Your task to perform on an android device: Add "razer blade" to the cart on newegg.com Image 0: 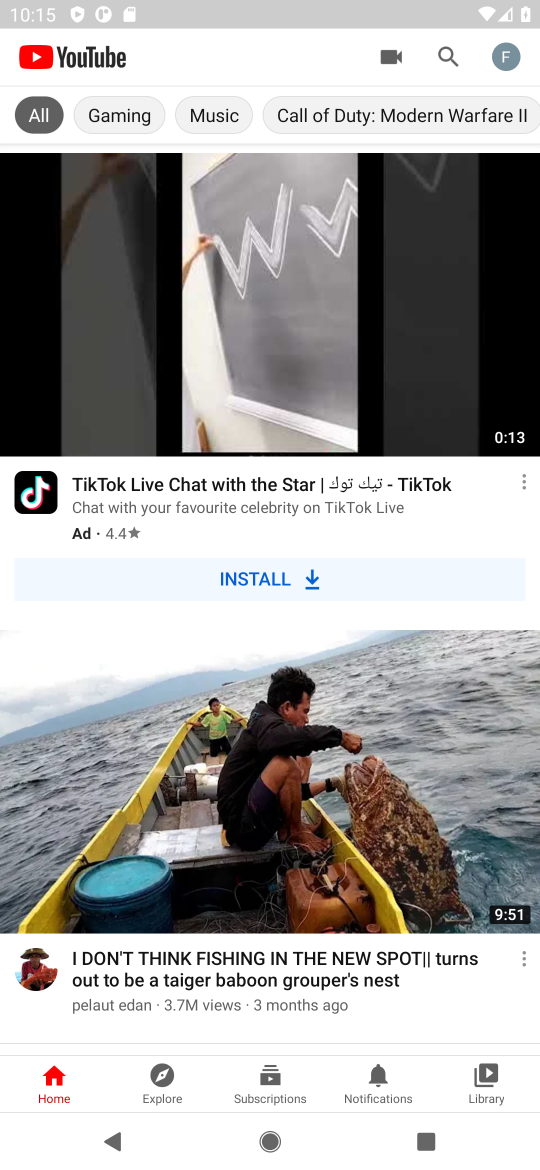
Step 0: press home button
Your task to perform on an android device: Add "razer blade" to the cart on newegg.com Image 1: 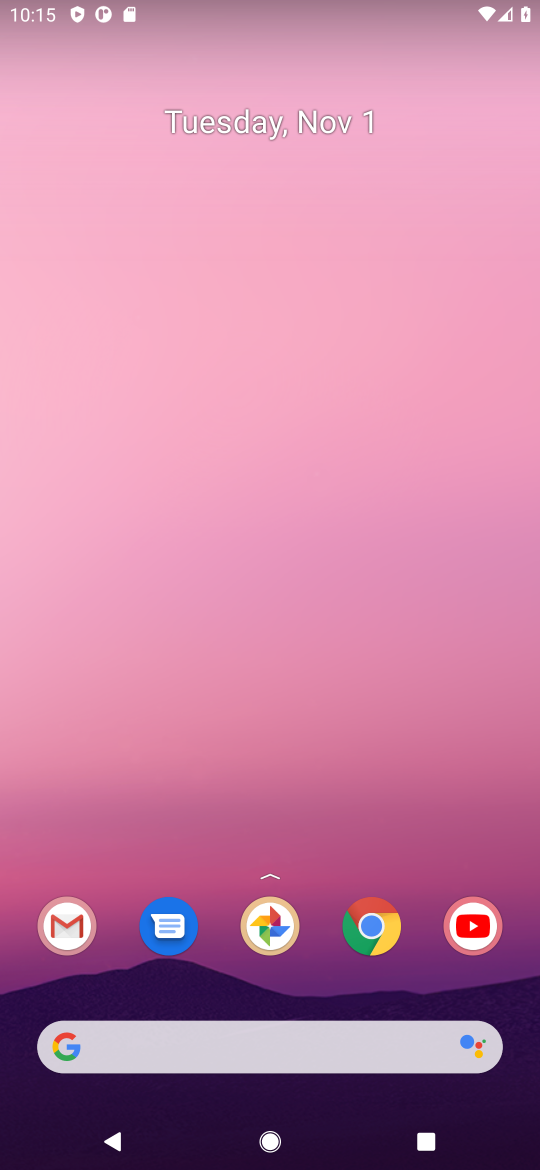
Step 1: click (374, 928)
Your task to perform on an android device: Add "razer blade" to the cart on newegg.com Image 2: 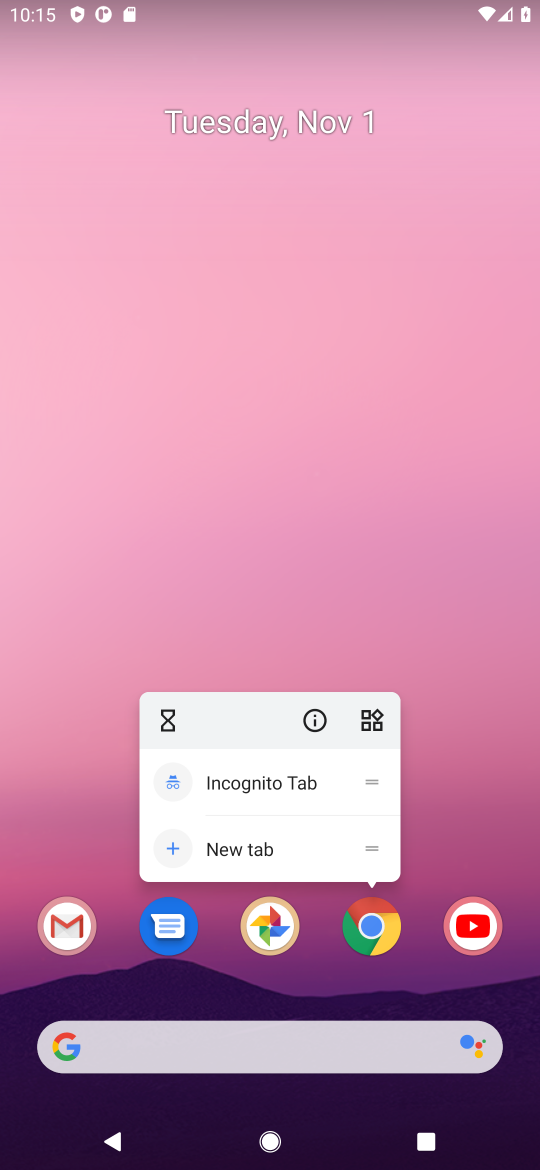
Step 2: click (369, 928)
Your task to perform on an android device: Add "razer blade" to the cart on newegg.com Image 3: 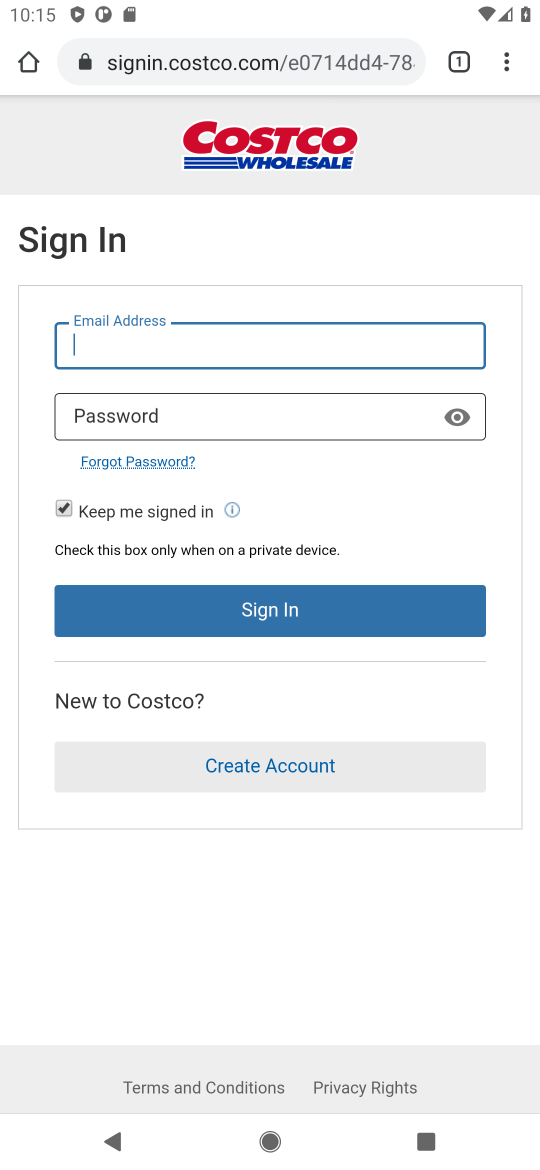
Step 3: press back button
Your task to perform on an android device: Add "razer blade" to the cart on newegg.com Image 4: 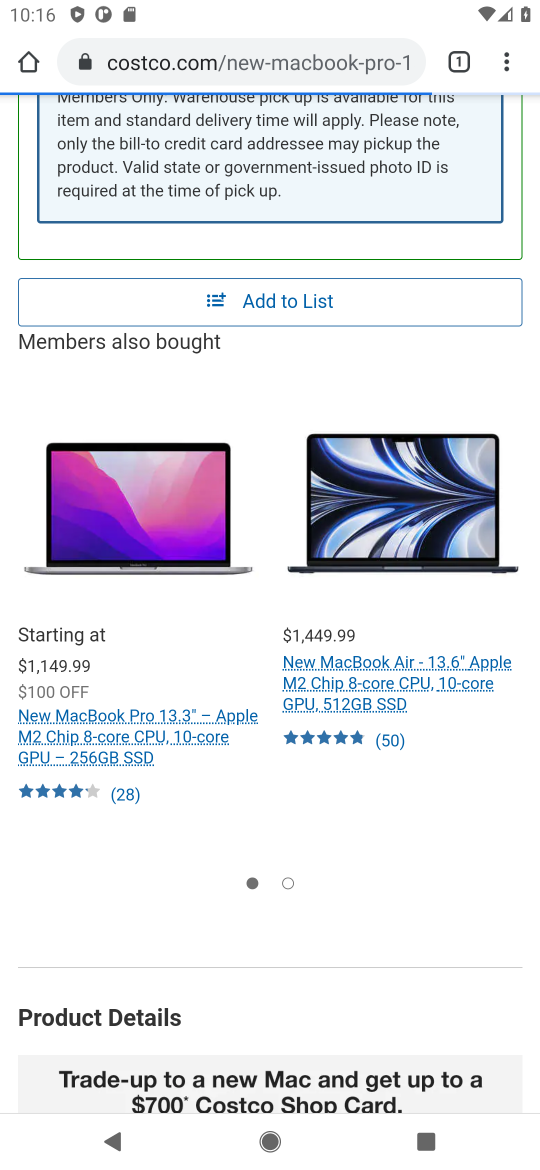
Step 4: click (205, 63)
Your task to perform on an android device: Add "razer blade" to the cart on newegg.com Image 5: 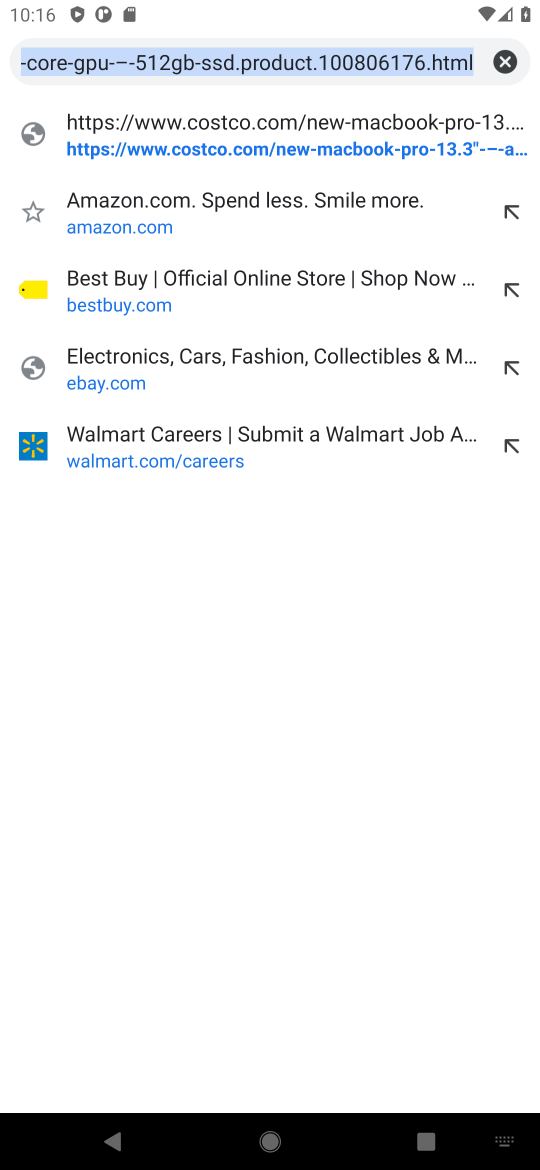
Step 5: click (506, 71)
Your task to perform on an android device: Add "razer blade" to the cart on newegg.com Image 6: 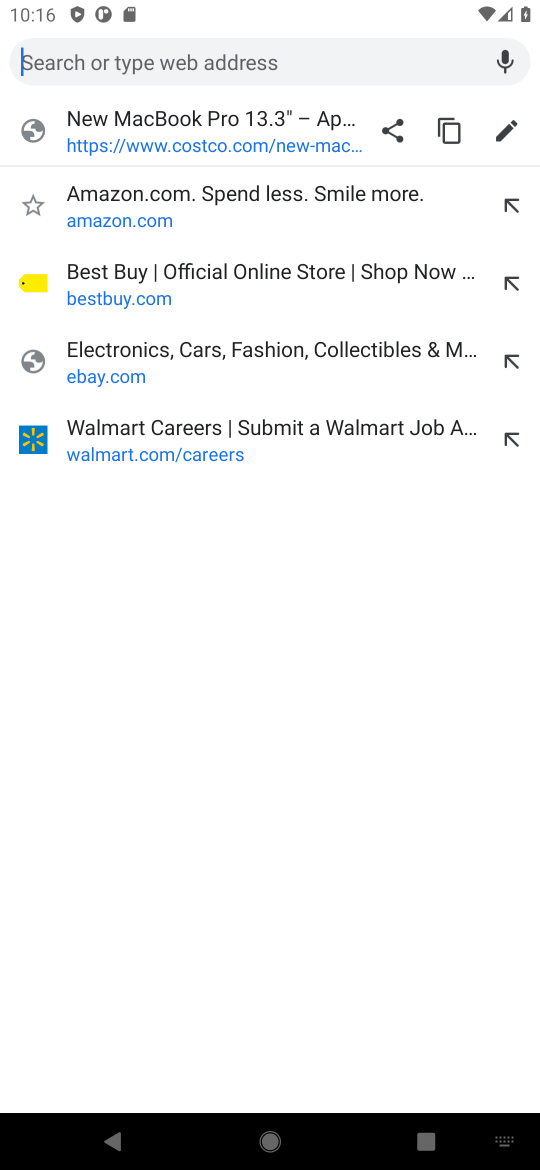
Step 6: type "newegg"
Your task to perform on an android device: Add "razer blade" to the cart on newegg.com Image 7: 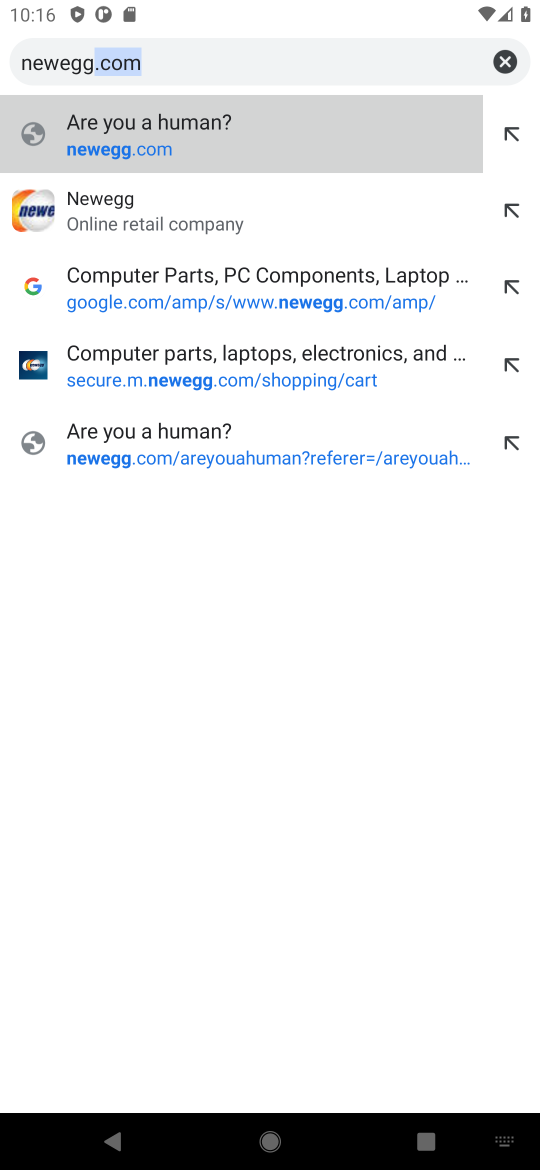
Step 7: click (72, 191)
Your task to perform on an android device: Add "razer blade" to the cart on newegg.com Image 8: 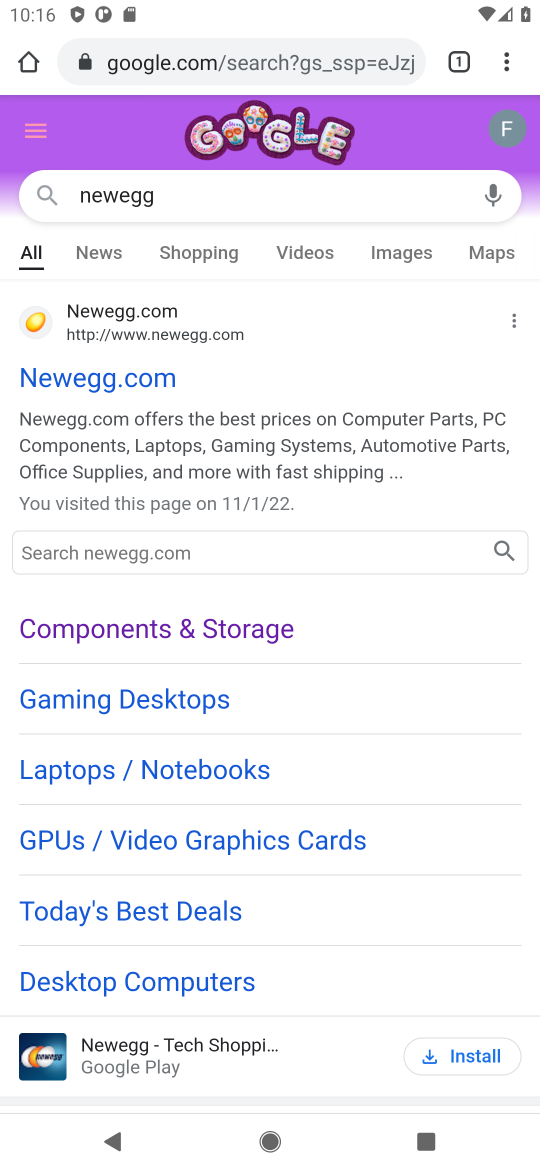
Step 8: click (75, 377)
Your task to perform on an android device: Add "razer blade" to the cart on newegg.com Image 9: 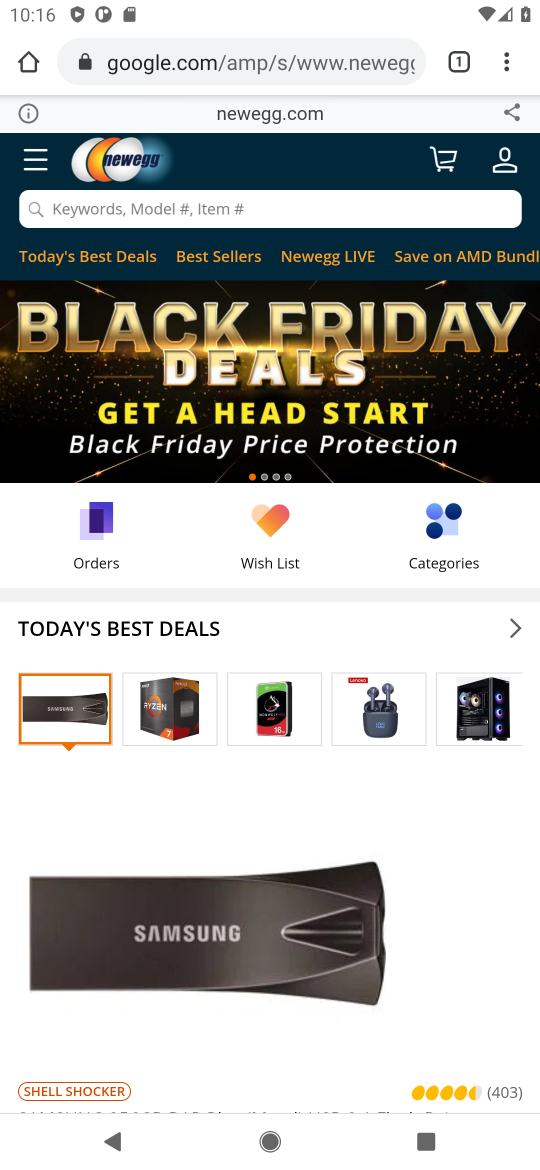
Step 9: click (223, 199)
Your task to perform on an android device: Add "razer blade" to the cart on newegg.com Image 10: 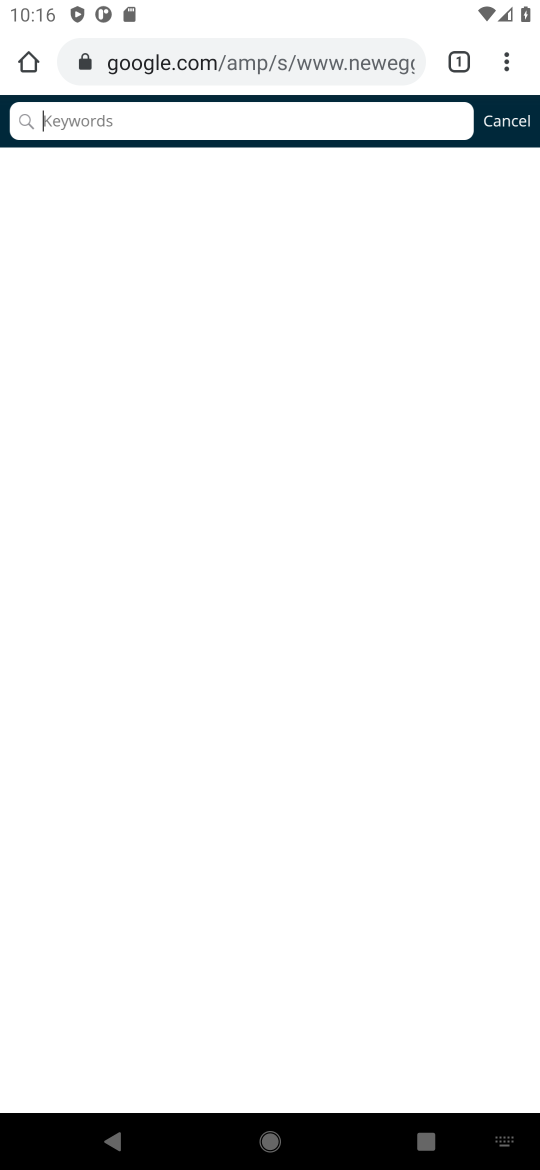
Step 10: type "razer blade"
Your task to perform on an android device: Add "razer blade" to the cart on newegg.com Image 11: 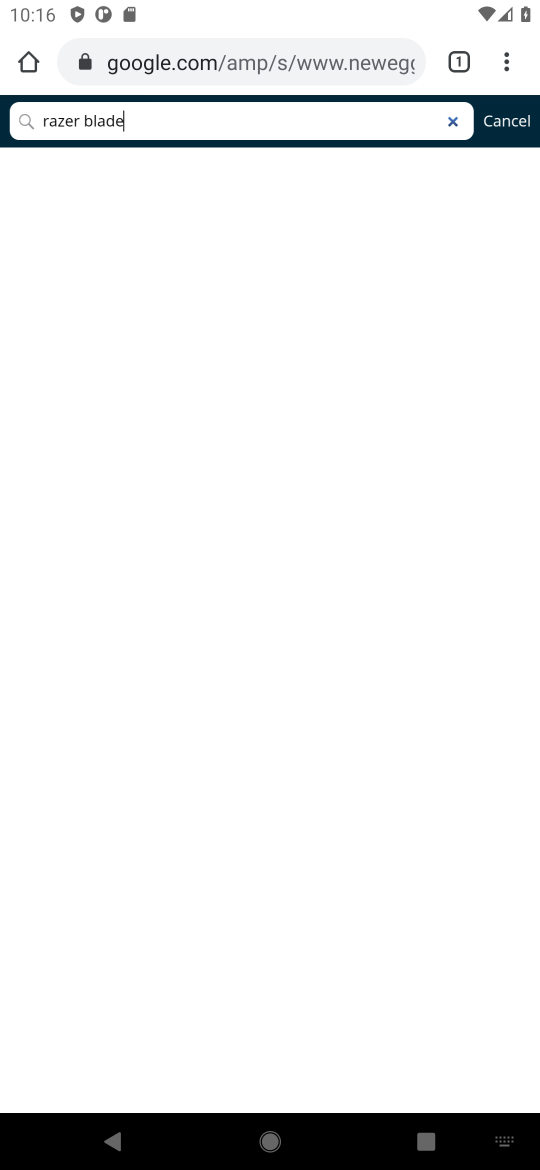
Step 11: type ""
Your task to perform on an android device: Add "razer blade" to the cart on newegg.com Image 12: 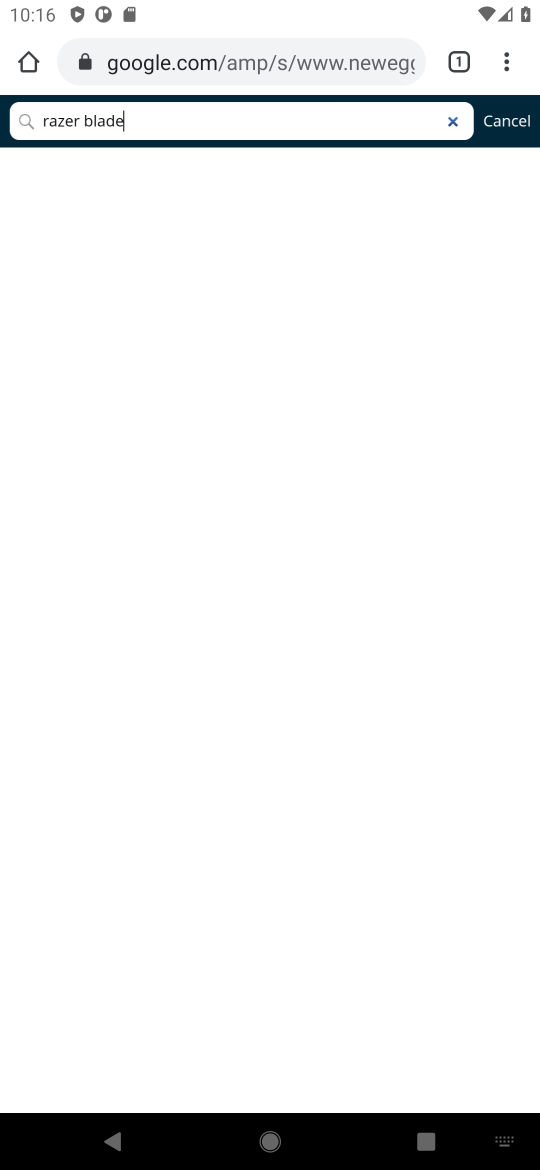
Step 12: type ""
Your task to perform on an android device: Add "razer blade" to the cart on newegg.com Image 13: 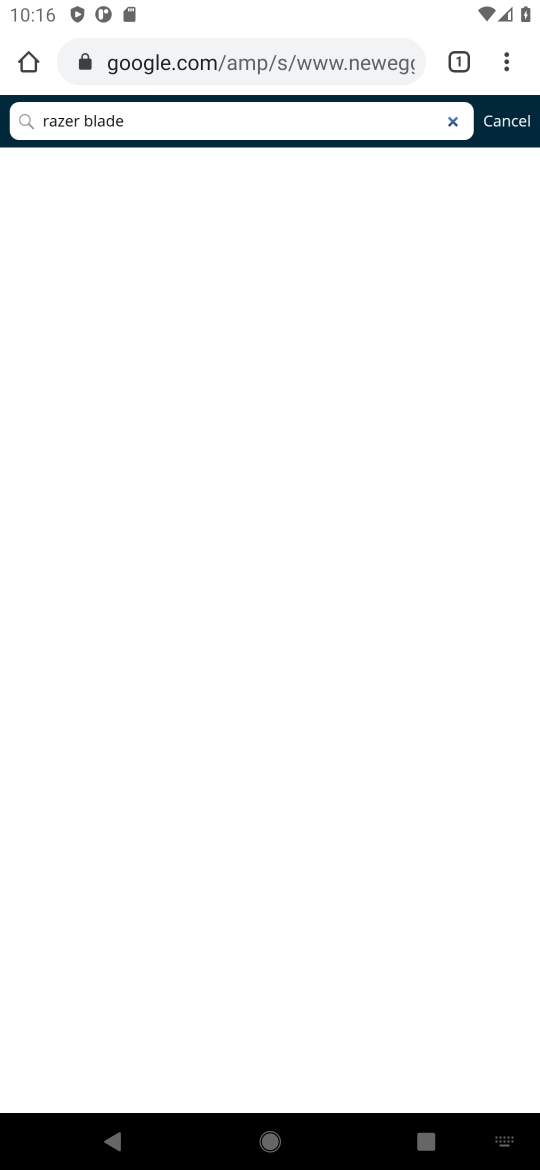
Step 13: click (137, 112)
Your task to perform on an android device: Add "razer blade" to the cart on newegg.com Image 14: 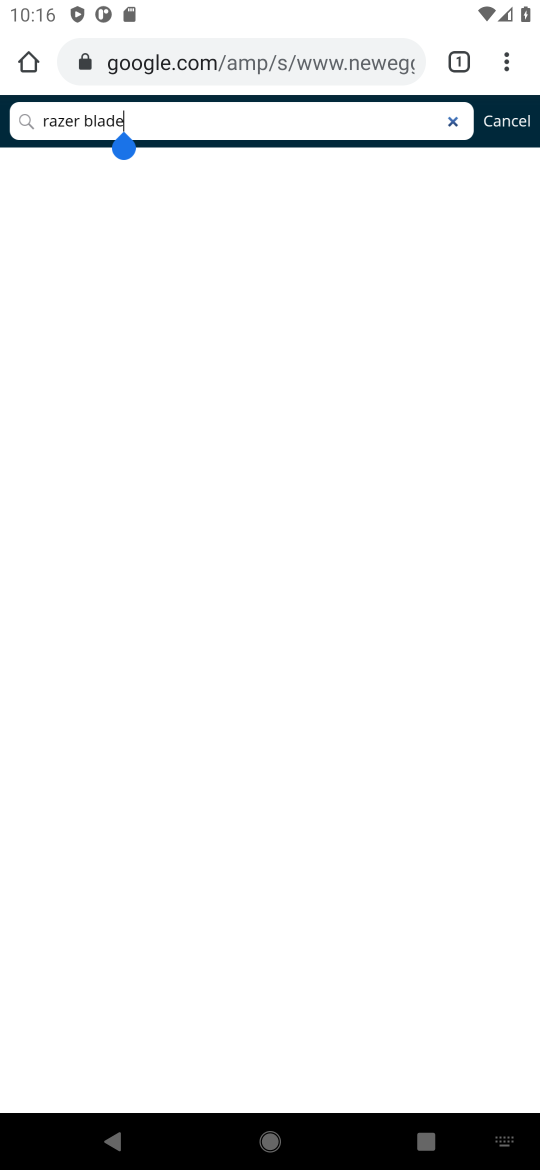
Step 14: click (459, 118)
Your task to perform on an android device: Add "razer blade" to the cart on newegg.com Image 15: 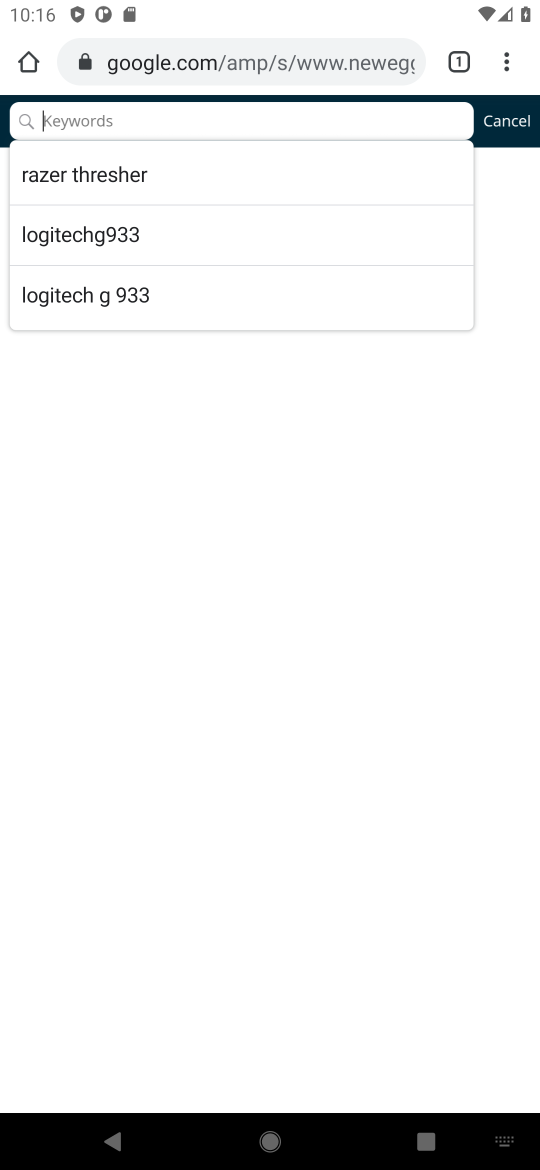
Step 15: click (104, 453)
Your task to perform on an android device: Add "razer blade" to the cart on newegg.com Image 16: 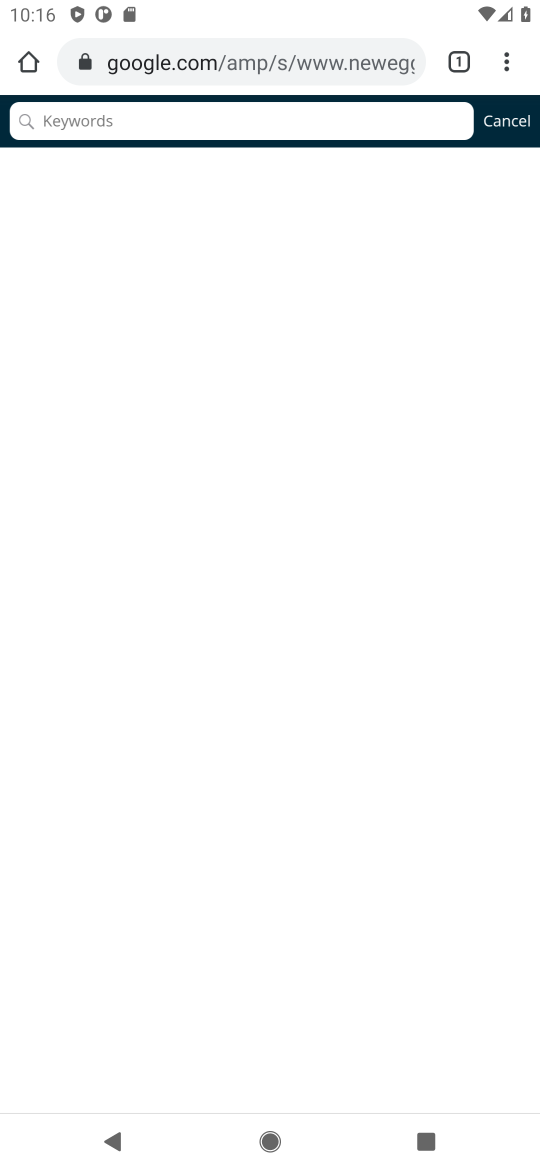
Step 16: click (497, 128)
Your task to perform on an android device: Add "razer blade" to the cart on newegg.com Image 17: 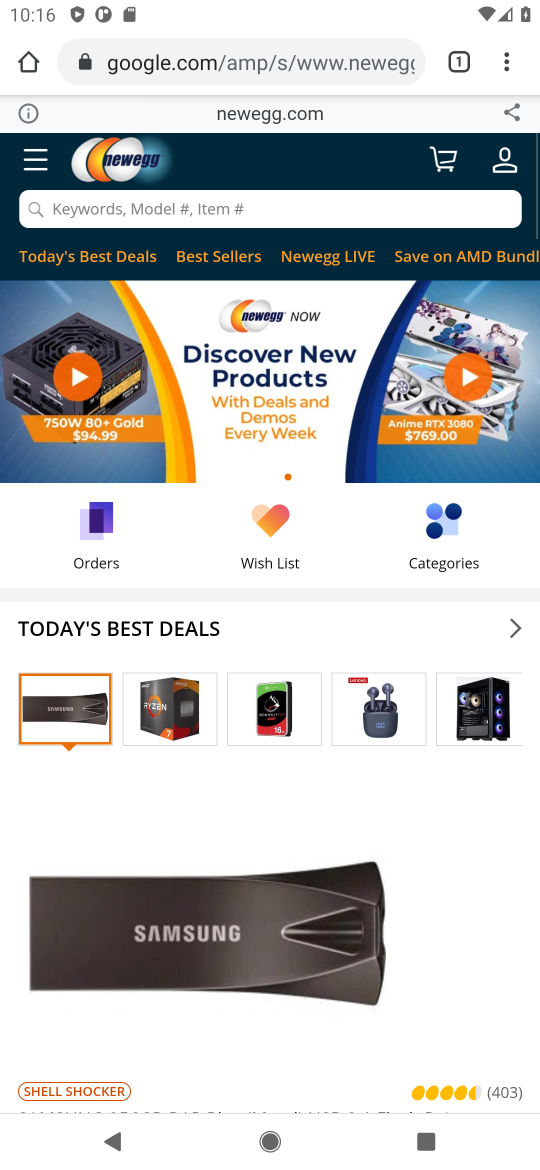
Step 17: press back button
Your task to perform on an android device: Add "razer blade" to the cart on newegg.com Image 18: 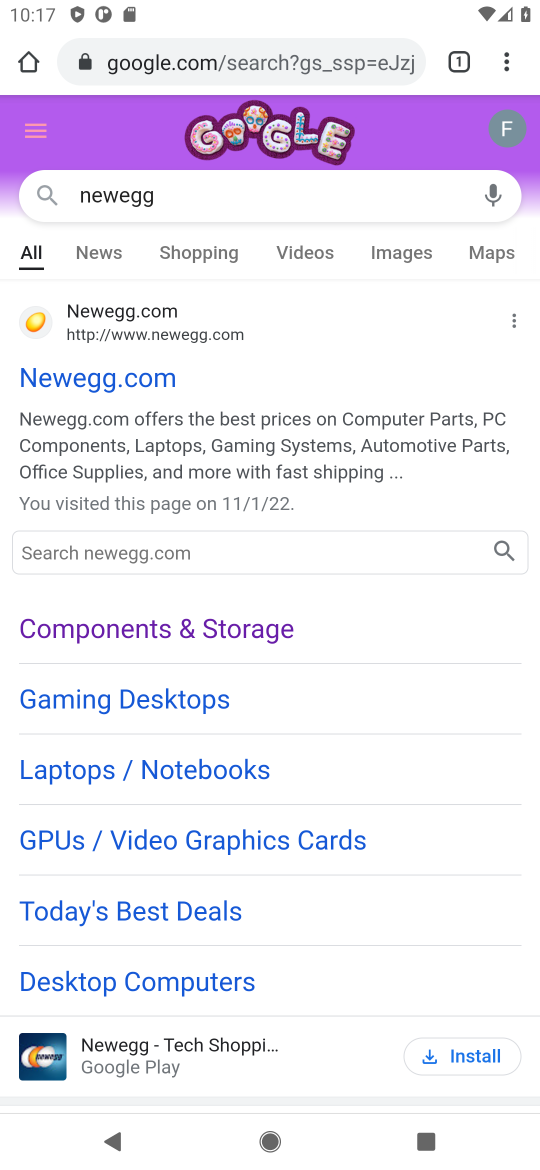
Step 18: click (86, 375)
Your task to perform on an android device: Add "razer blade" to the cart on newegg.com Image 19: 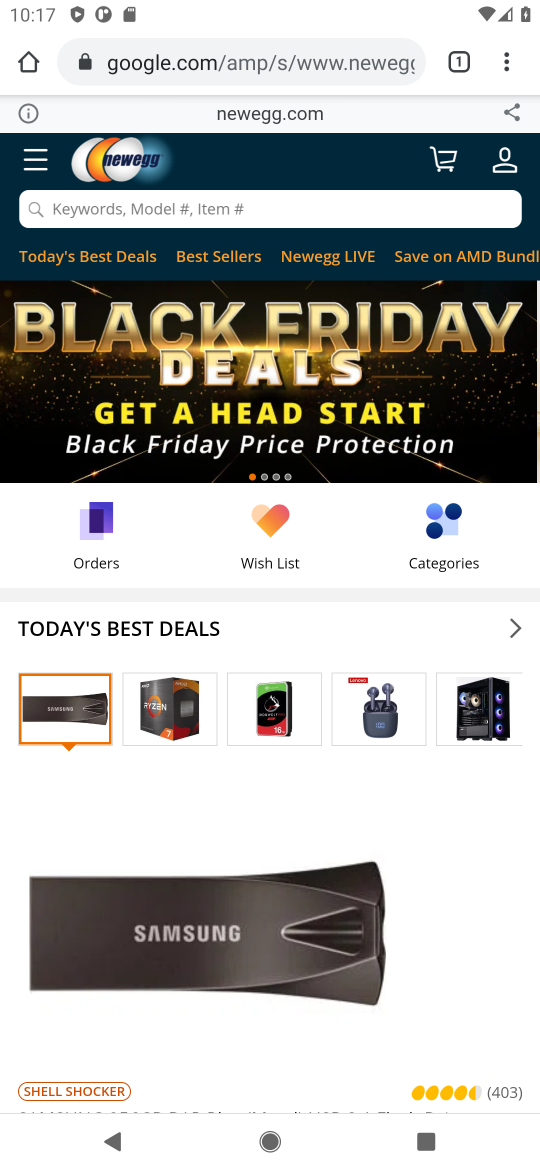
Step 19: click (88, 213)
Your task to perform on an android device: Add "razer blade" to the cart on newegg.com Image 20: 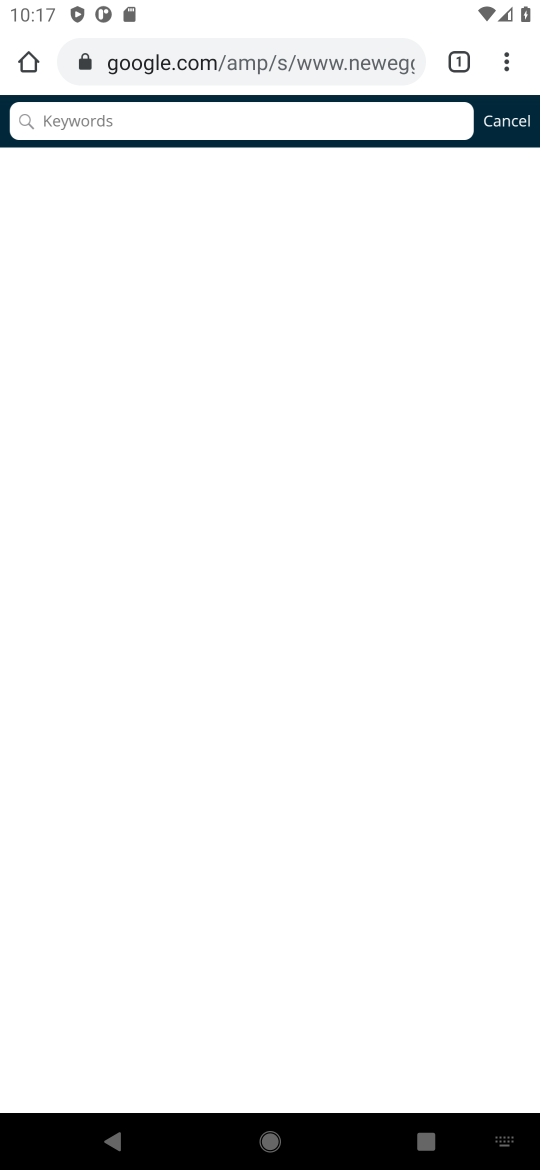
Step 20: type "razer blade"
Your task to perform on an android device: Add "razer blade" to the cart on newegg.com Image 21: 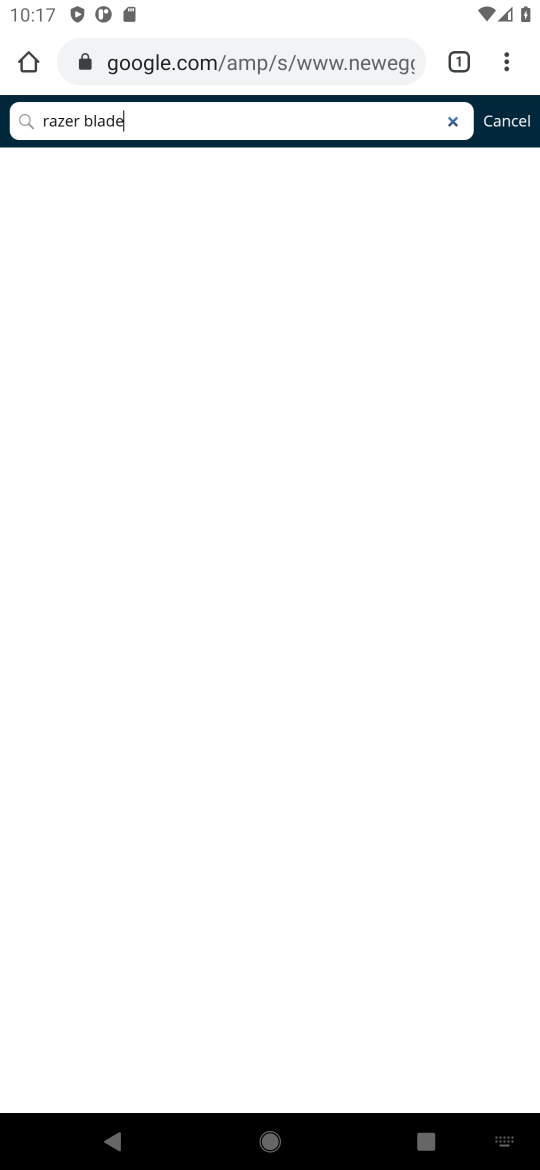
Step 21: type ""
Your task to perform on an android device: Add "razer blade" to the cart on newegg.com Image 22: 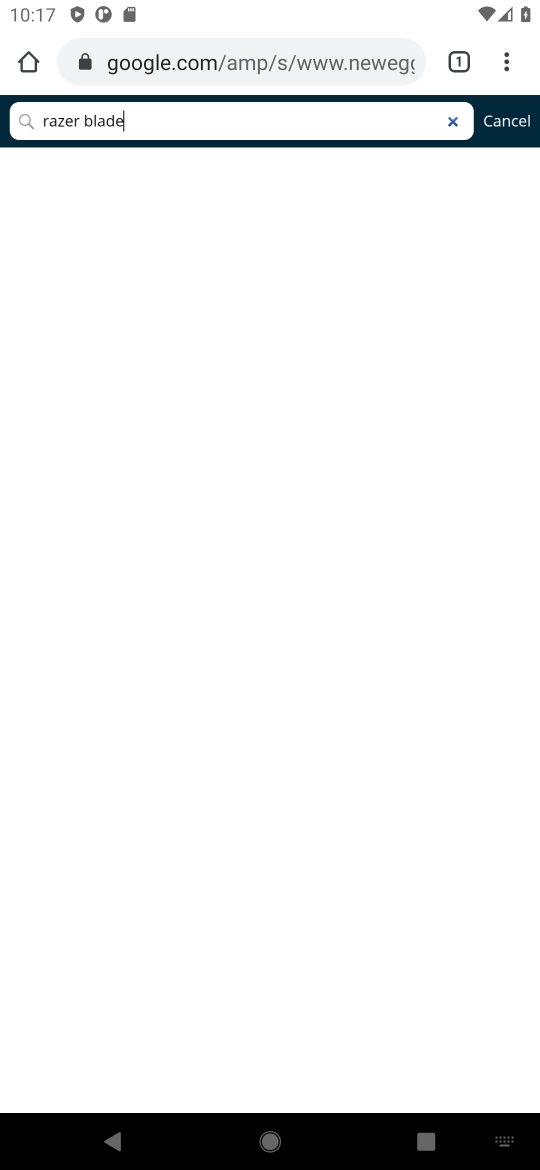
Step 22: click (32, 119)
Your task to perform on an android device: Add "razer blade" to the cart on newegg.com Image 23: 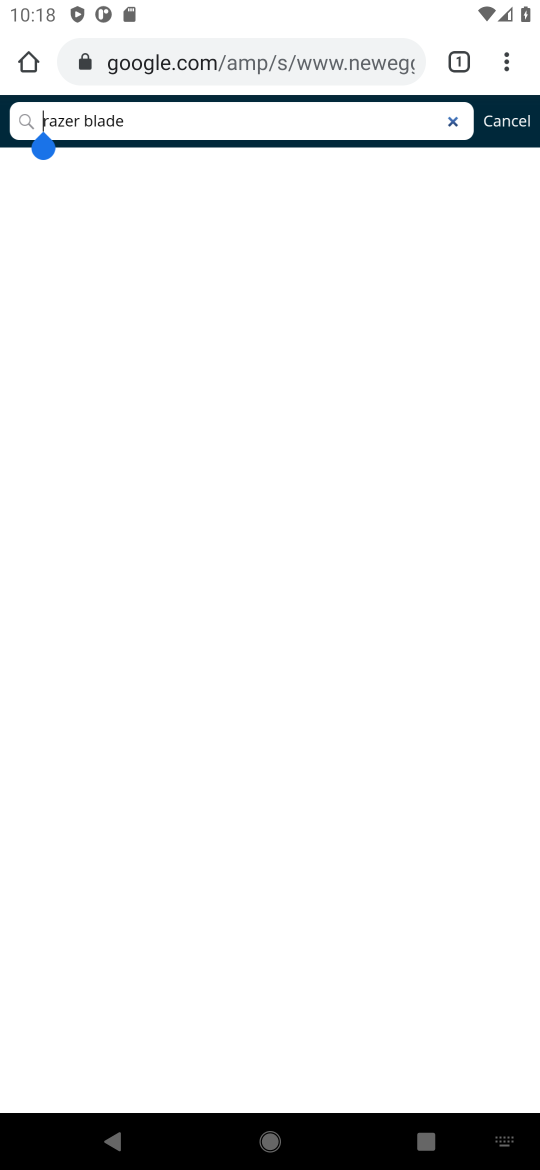
Step 23: click (257, 71)
Your task to perform on an android device: Add "razer blade" to the cart on newegg.com Image 24: 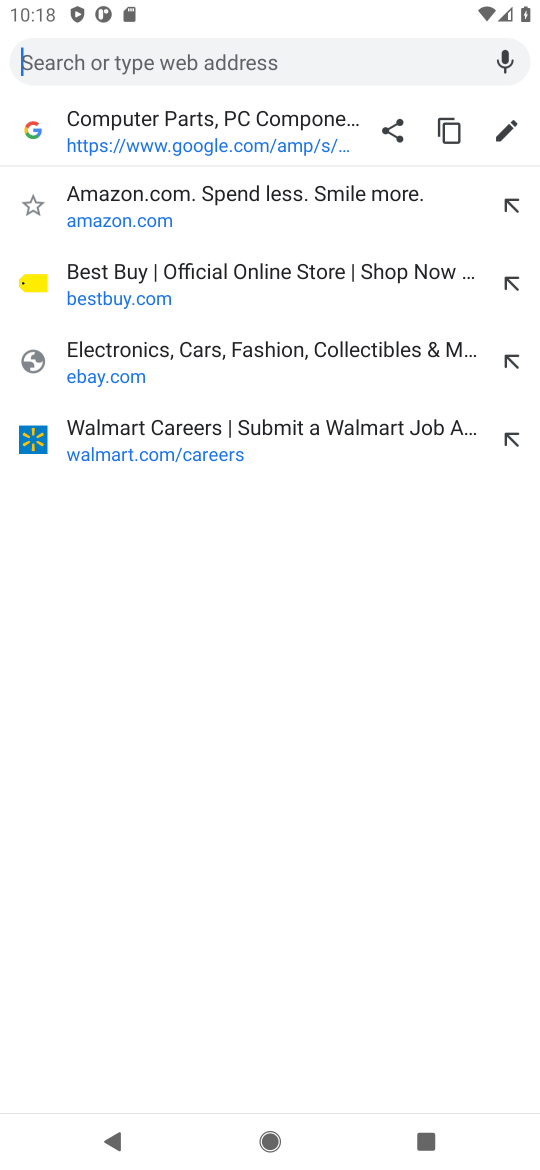
Step 24: task complete